Your task to perform on an android device: toggle priority inbox in the gmail app Image 0: 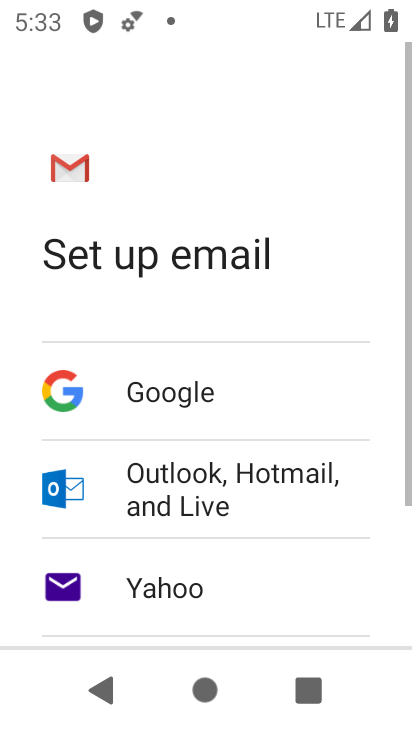
Step 0: press home button
Your task to perform on an android device: toggle priority inbox in the gmail app Image 1: 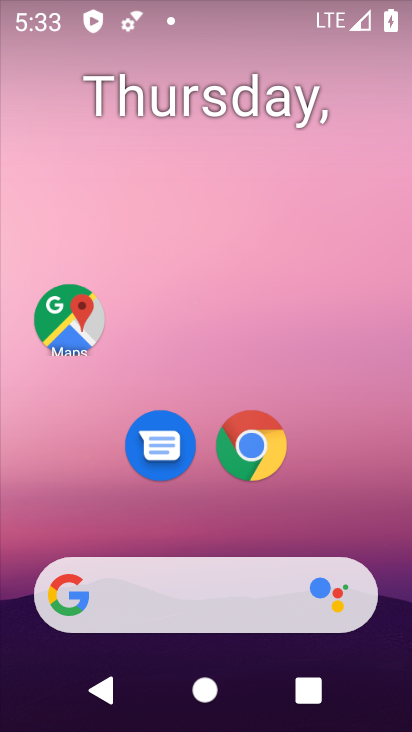
Step 1: drag from (309, 481) to (312, 115)
Your task to perform on an android device: toggle priority inbox in the gmail app Image 2: 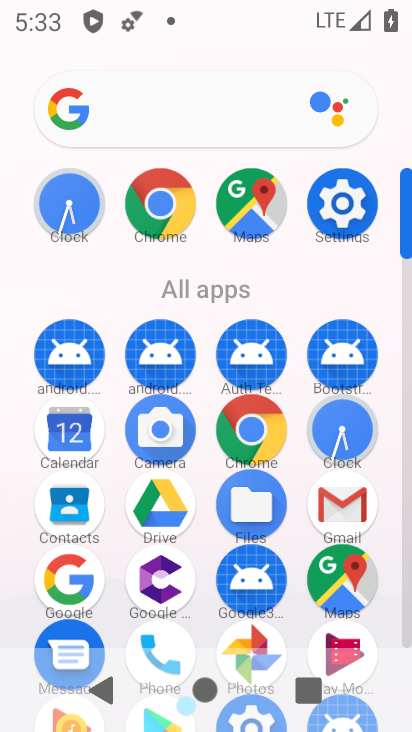
Step 2: click (354, 499)
Your task to perform on an android device: toggle priority inbox in the gmail app Image 3: 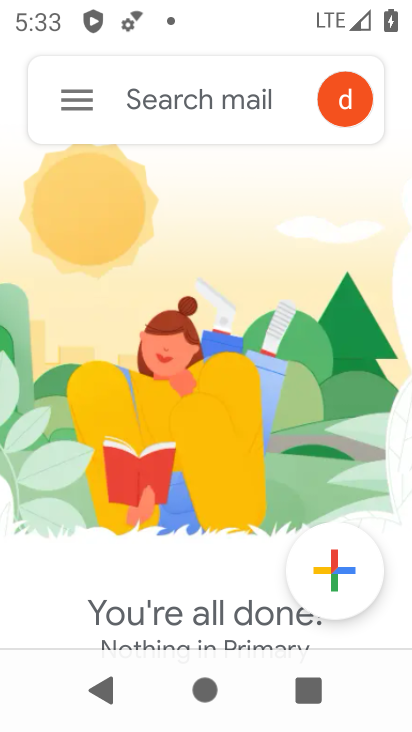
Step 3: click (74, 100)
Your task to perform on an android device: toggle priority inbox in the gmail app Image 4: 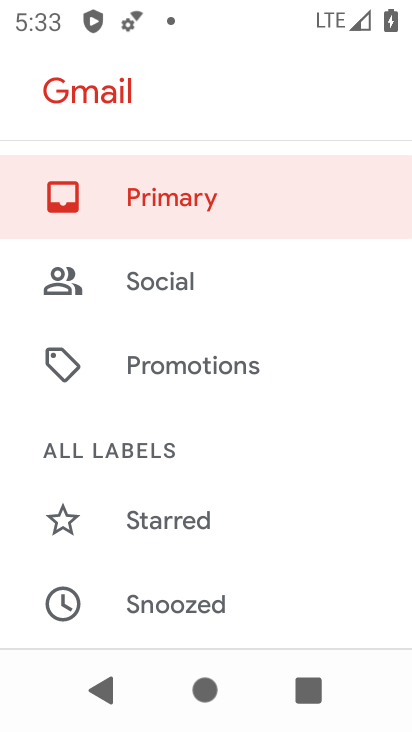
Step 4: drag from (253, 578) to (301, 131)
Your task to perform on an android device: toggle priority inbox in the gmail app Image 5: 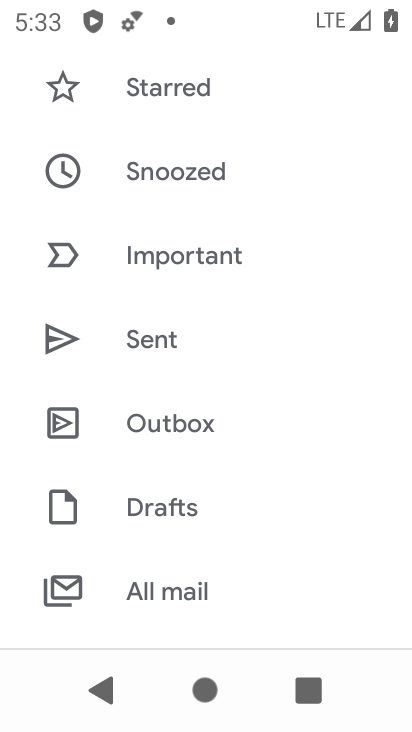
Step 5: drag from (270, 578) to (276, 181)
Your task to perform on an android device: toggle priority inbox in the gmail app Image 6: 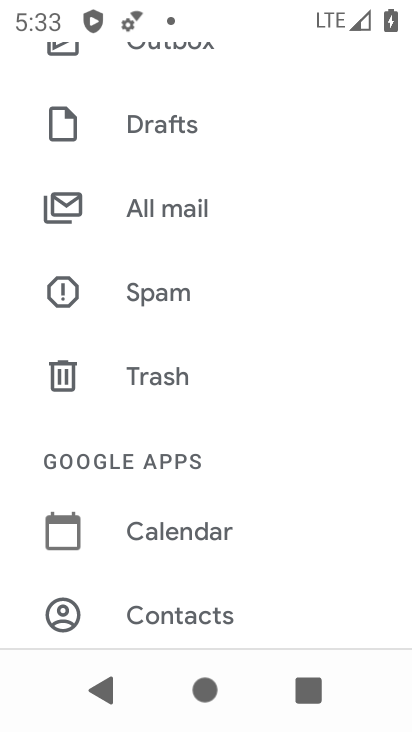
Step 6: drag from (283, 555) to (254, 205)
Your task to perform on an android device: toggle priority inbox in the gmail app Image 7: 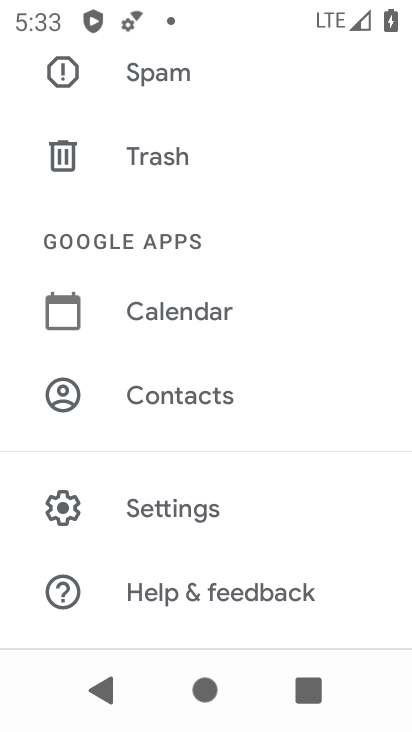
Step 7: click (180, 501)
Your task to perform on an android device: toggle priority inbox in the gmail app Image 8: 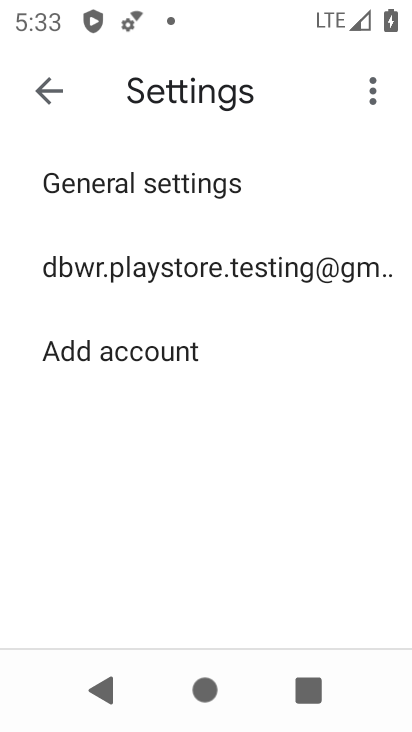
Step 8: click (286, 271)
Your task to perform on an android device: toggle priority inbox in the gmail app Image 9: 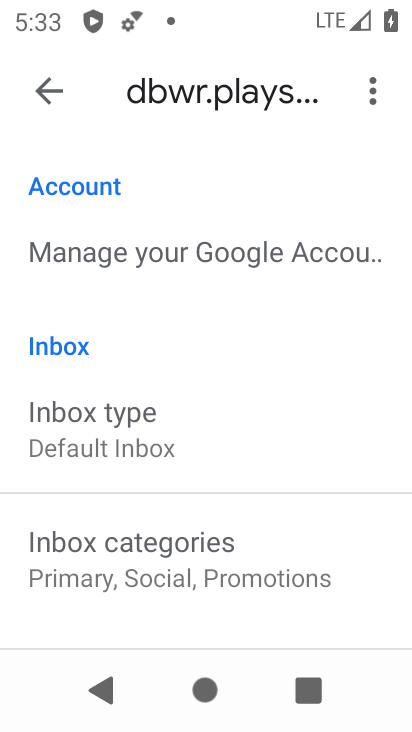
Step 9: click (139, 440)
Your task to perform on an android device: toggle priority inbox in the gmail app Image 10: 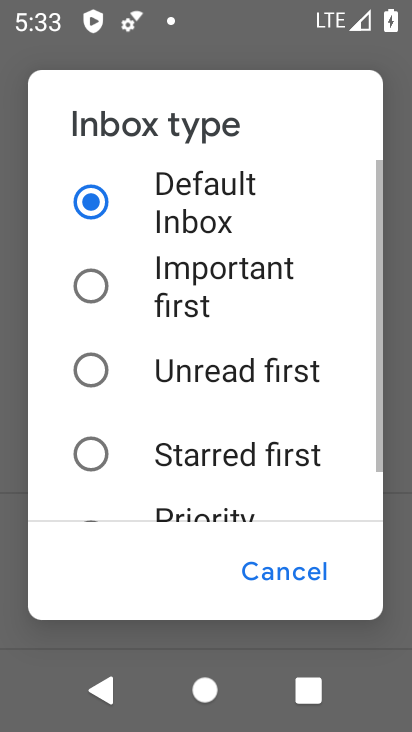
Step 10: drag from (264, 438) to (278, 198)
Your task to perform on an android device: toggle priority inbox in the gmail app Image 11: 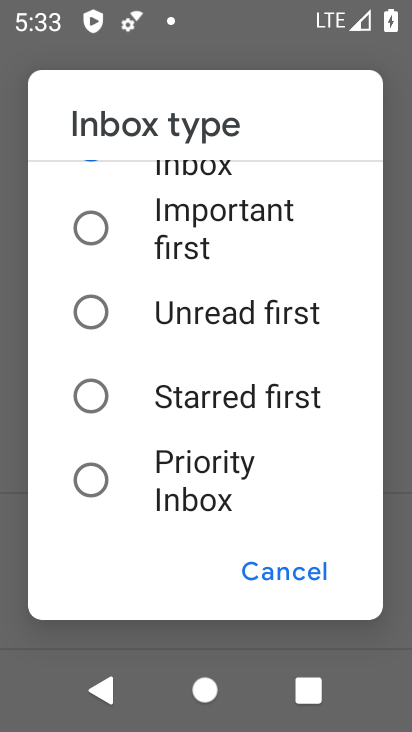
Step 11: click (193, 474)
Your task to perform on an android device: toggle priority inbox in the gmail app Image 12: 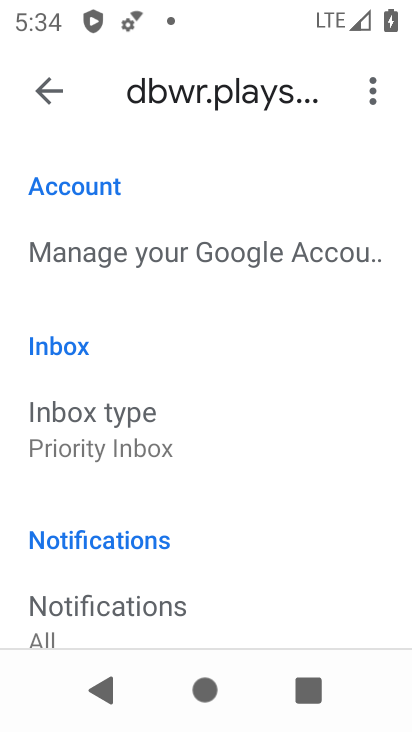
Step 12: task complete